Your task to perform on an android device: Clear the shopping cart on amazon. Search for "razer blackwidow" on amazon, select the first entry, and add it to the cart. Image 0: 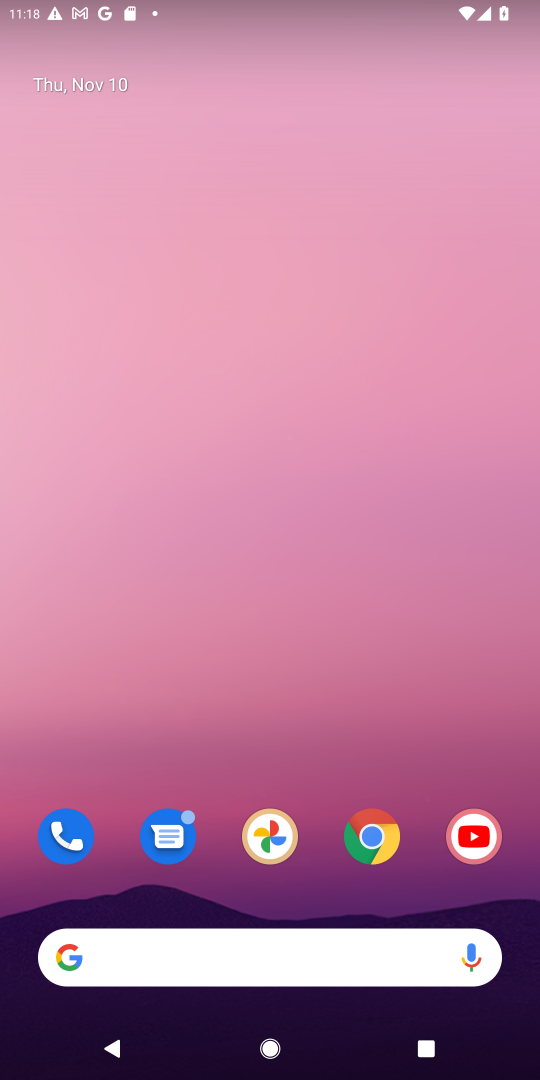
Step 0: click (235, 959)
Your task to perform on an android device: Clear the shopping cart on amazon. Search for "razer blackwidow" on amazon, select the first entry, and add it to the cart. Image 1: 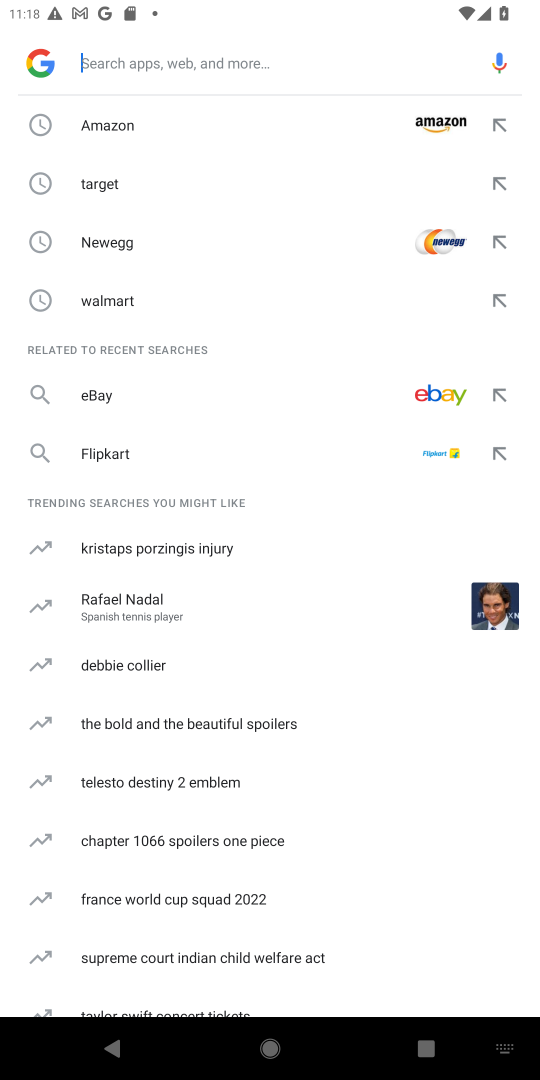
Step 1: click (147, 124)
Your task to perform on an android device: Clear the shopping cart on amazon. Search for "razer blackwidow" on amazon, select the first entry, and add it to the cart. Image 2: 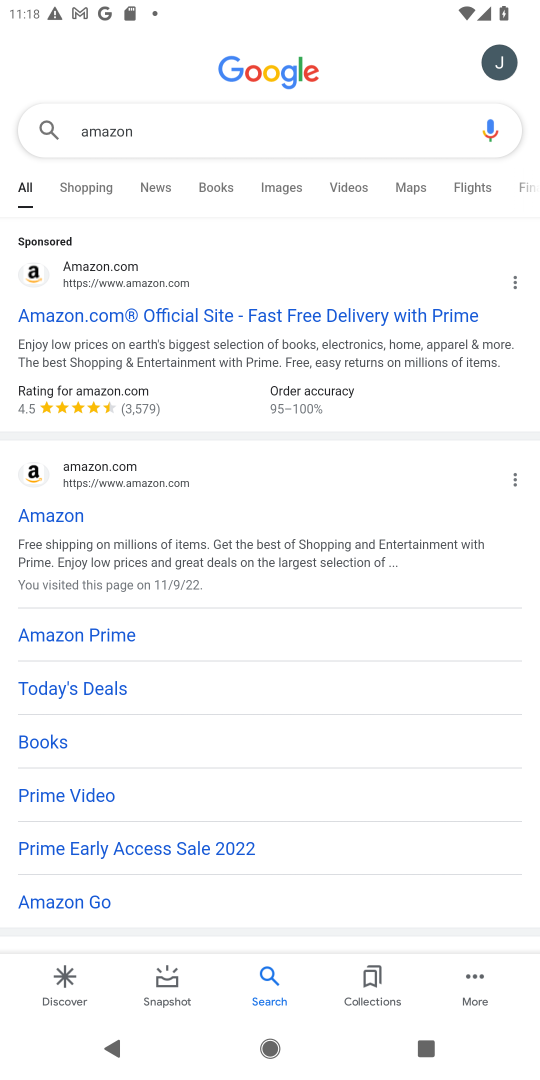
Step 2: click (93, 262)
Your task to perform on an android device: Clear the shopping cart on amazon. Search for "razer blackwidow" on amazon, select the first entry, and add it to the cart. Image 3: 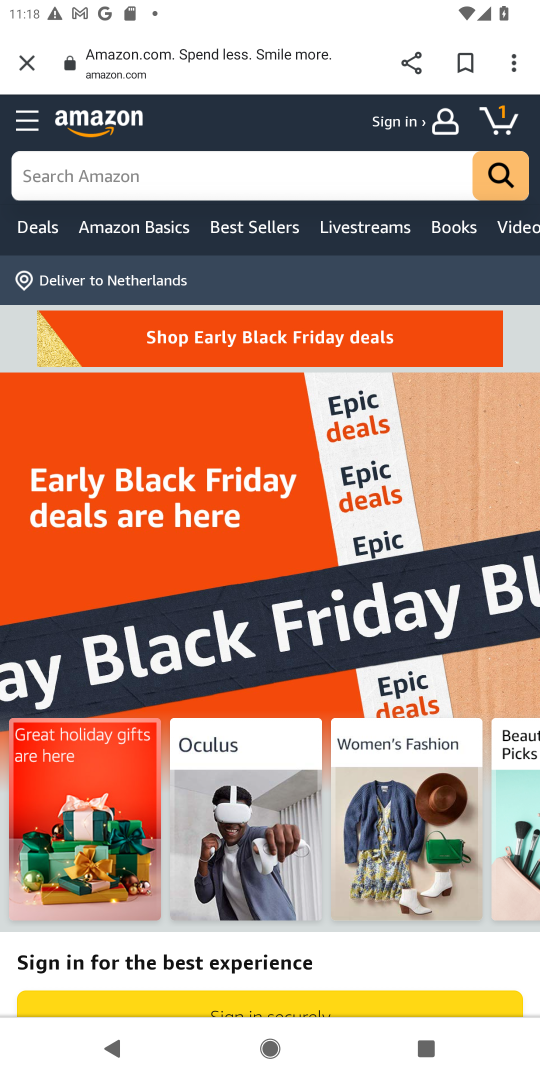
Step 3: click (131, 169)
Your task to perform on an android device: Clear the shopping cart on amazon. Search for "razer blackwidow" on amazon, select the first entry, and add it to the cart. Image 4: 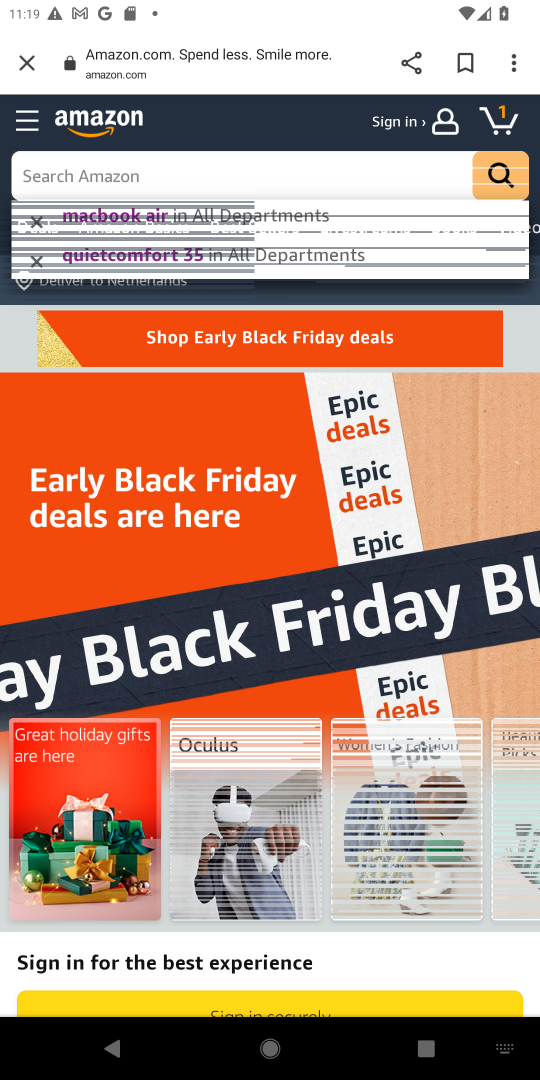
Step 4: type "razer blackwidow"
Your task to perform on an android device: Clear the shopping cart on amazon. Search for "razer blackwidow" on amazon, select the first entry, and add it to the cart. Image 5: 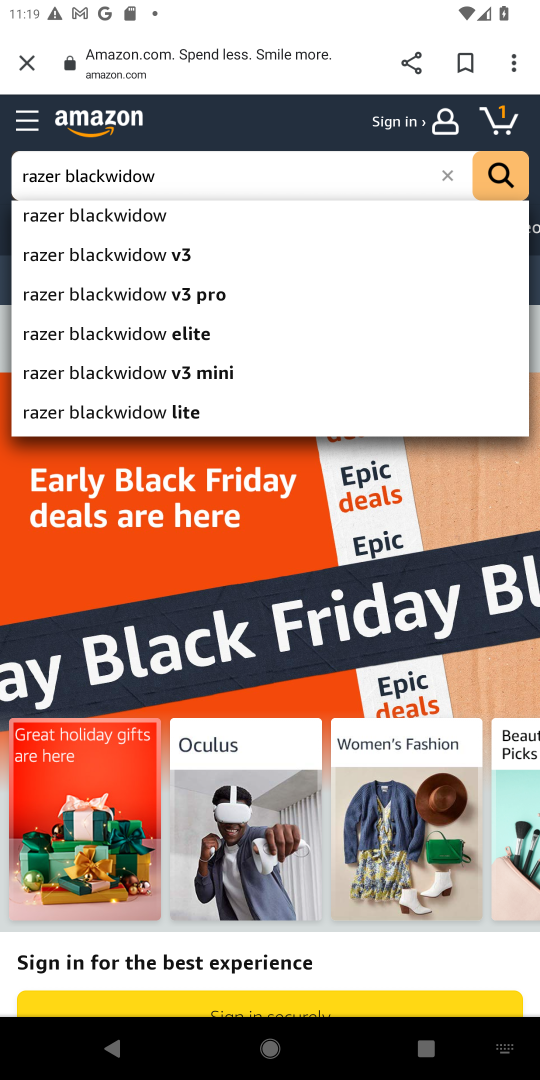
Step 5: click (110, 211)
Your task to perform on an android device: Clear the shopping cart on amazon. Search for "razer blackwidow" on amazon, select the first entry, and add it to the cart. Image 6: 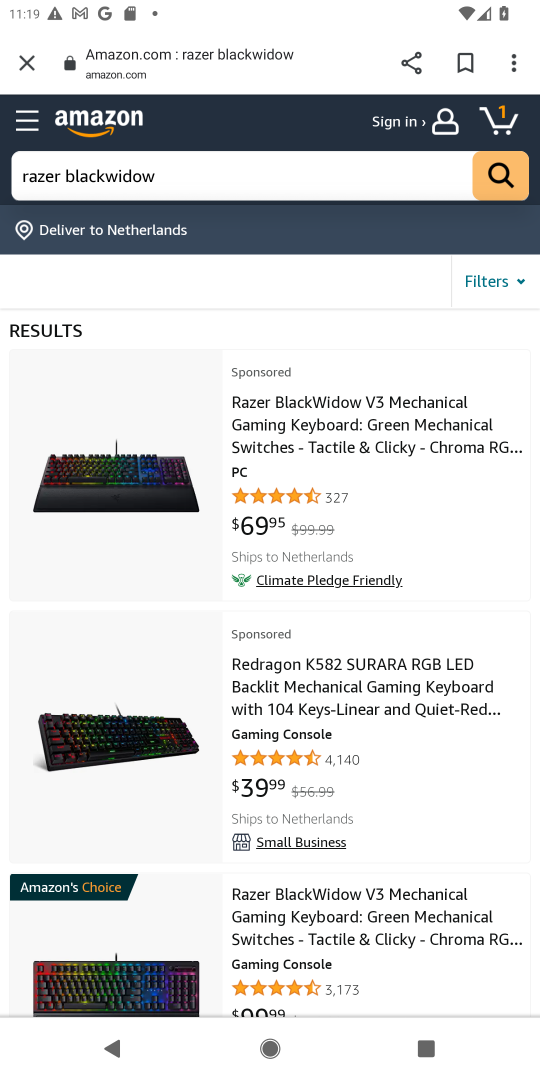
Step 6: click (238, 433)
Your task to perform on an android device: Clear the shopping cart on amazon. Search for "razer blackwidow" on amazon, select the first entry, and add it to the cart. Image 7: 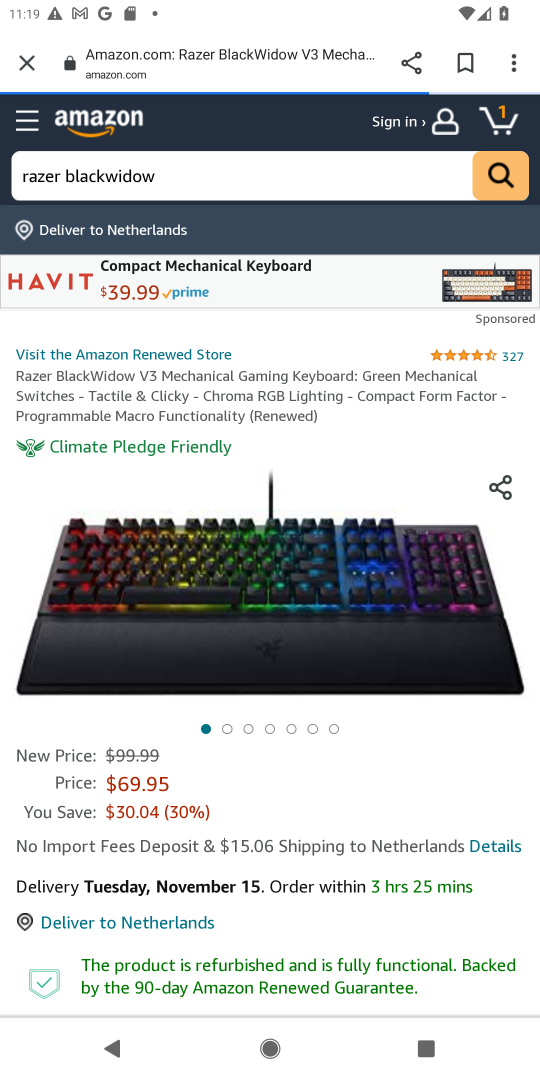
Step 7: drag from (301, 729) to (323, 428)
Your task to perform on an android device: Clear the shopping cart on amazon. Search for "razer blackwidow" on amazon, select the first entry, and add it to the cart. Image 8: 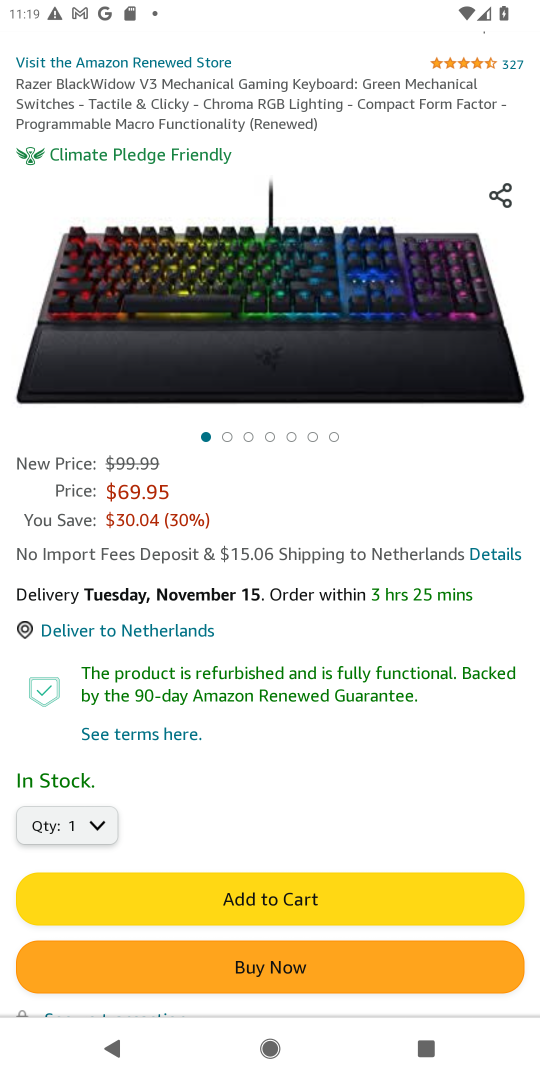
Step 8: drag from (298, 766) to (323, 574)
Your task to perform on an android device: Clear the shopping cart on amazon. Search for "razer blackwidow" on amazon, select the first entry, and add it to the cart. Image 9: 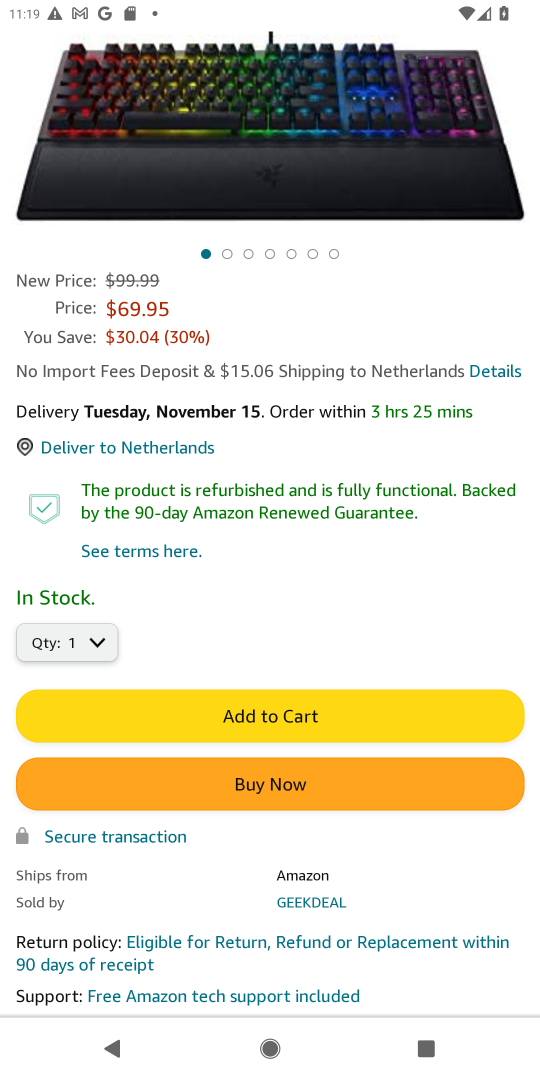
Step 9: click (243, 716)
Your task to perform on an android device: Clear the shopping cart on amazon. Search for "razer blackwidow" on amazon, select the first entry, and add it to the cart. Image 10: 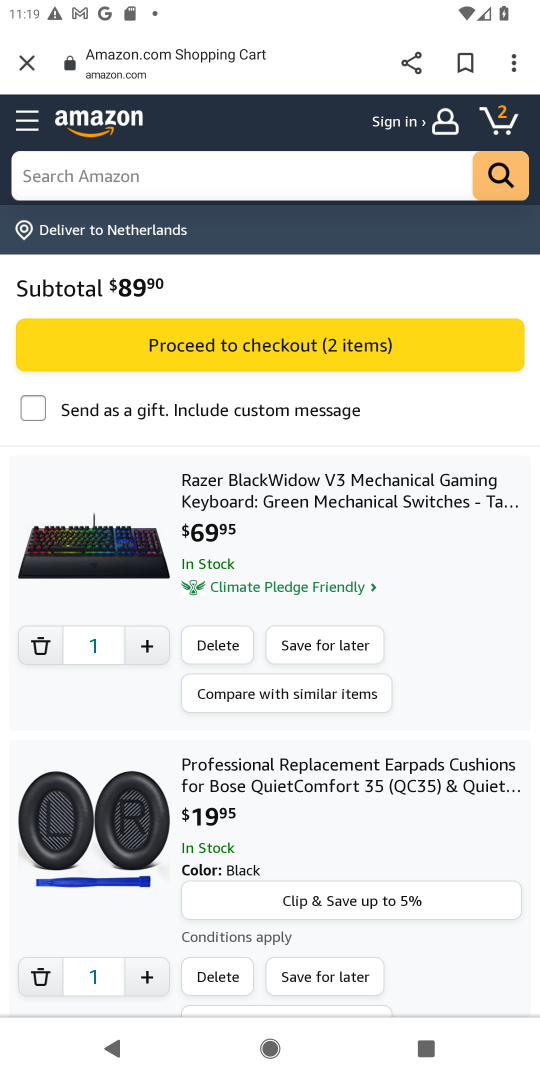
Step 10: task complete